Your task to perform on an android device: show emergency info Image 0: 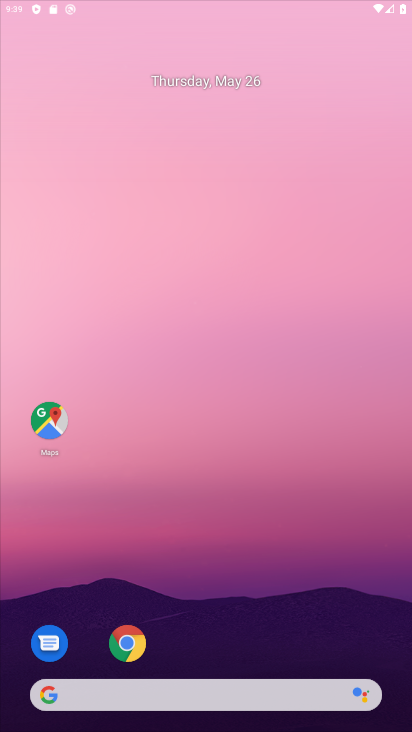
Step 0: click (168, 41)
Your task to perform on an android device: show emergency info Image 1: 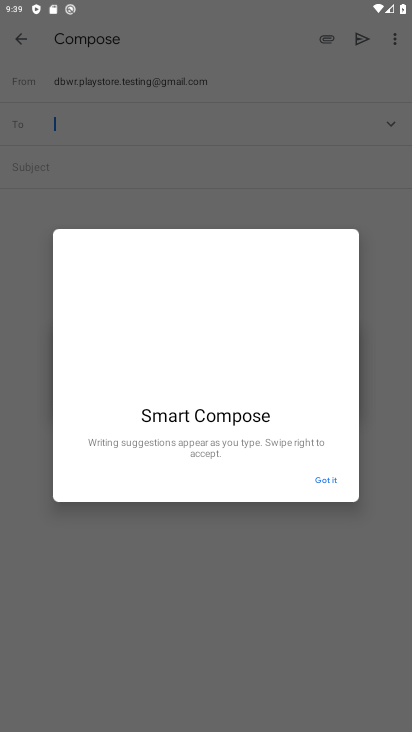
Step 1: press back button
Your task to perform on an android device: show emergency info Image 2: 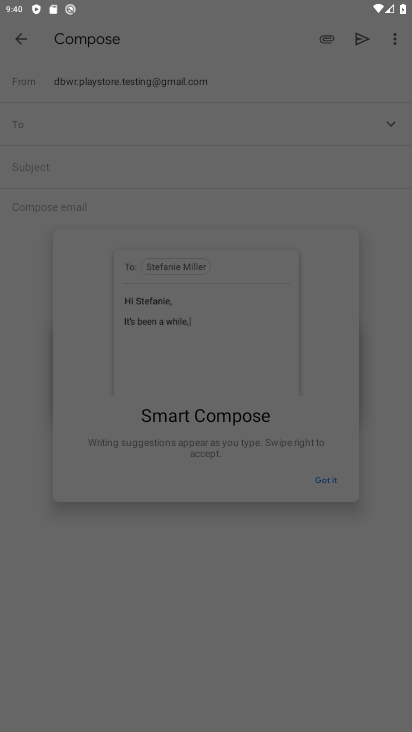
Step 2: click (322, 480)
Your task to perform on an android device: show emergency info Image 3: 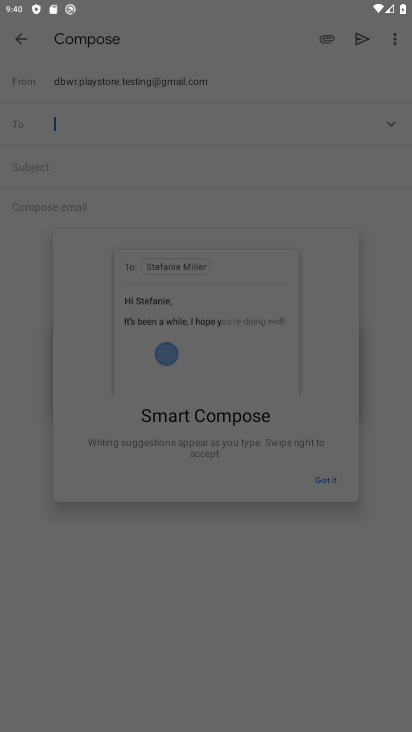
Step 3: press home button
Your task to perform on an android device: show emergency info Image 4: 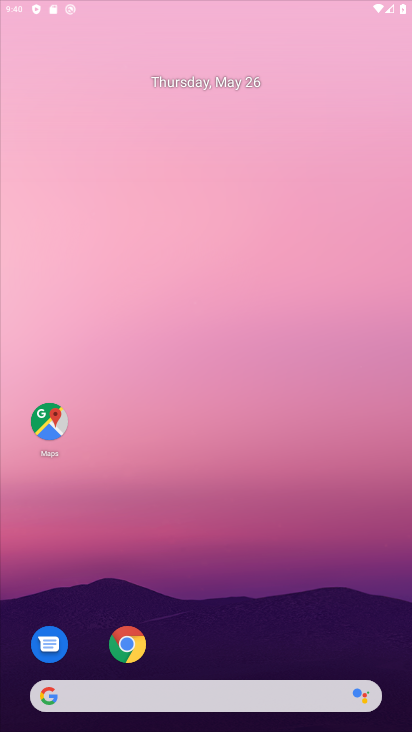
Step 4: press back button
Your task to perform on an android device: show emergency info Image 5: 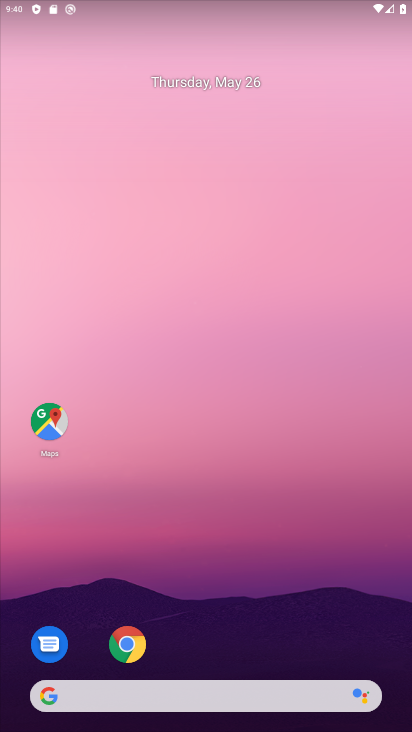
Step 5: drag from (207, 450) to (120, 148)
Your task to perform on an android device: show emergency info Image 6: 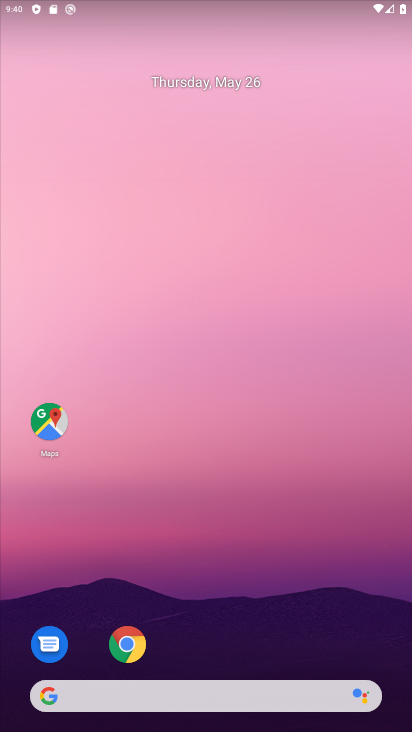
Step 6: drag from (276, 637) to (145, 96)
Your task to perform on an android device: show emergency info Image 7: 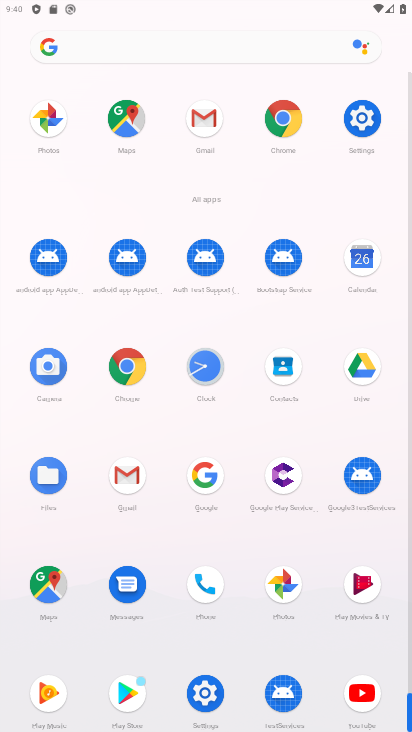
Step 7: click (360, 114)
Your task to perform on an android device: show emergency info Image 8: 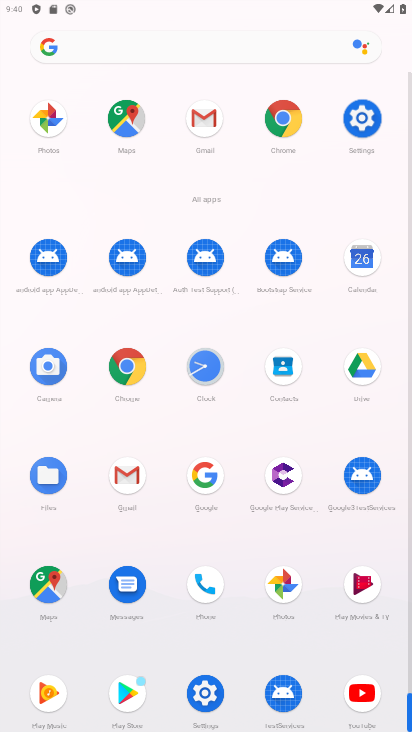
Step 8: click (360, 114)
Your task to perform on an android device: show emergency info Image 9: 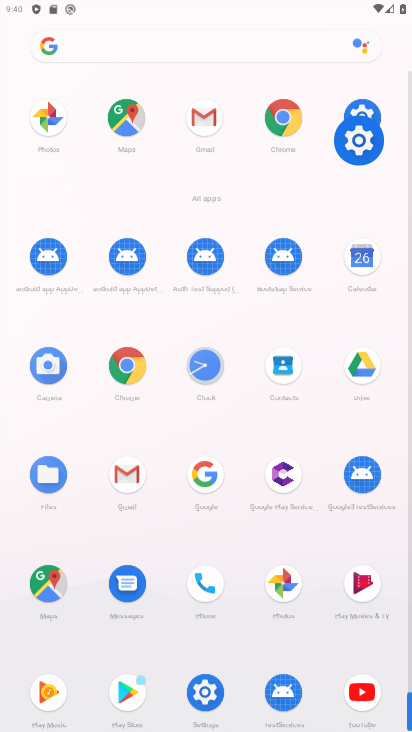
Step 9: click (360, 114)
Your task to perform on an android device: show emergency info Image 10: 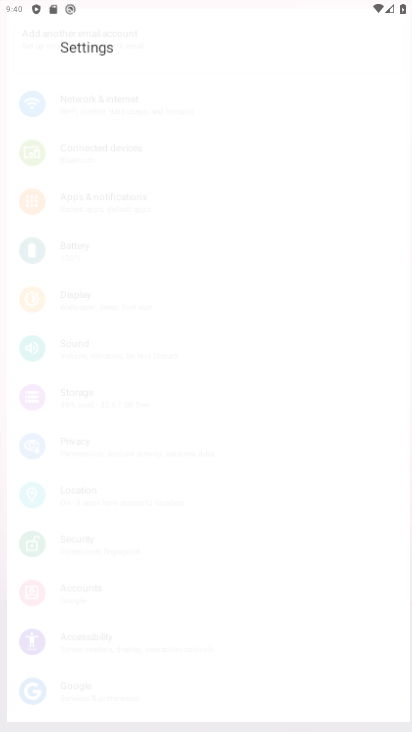
Step 10: click (361, 113)
Your task to perform on an android device: show emergency info Image 11: 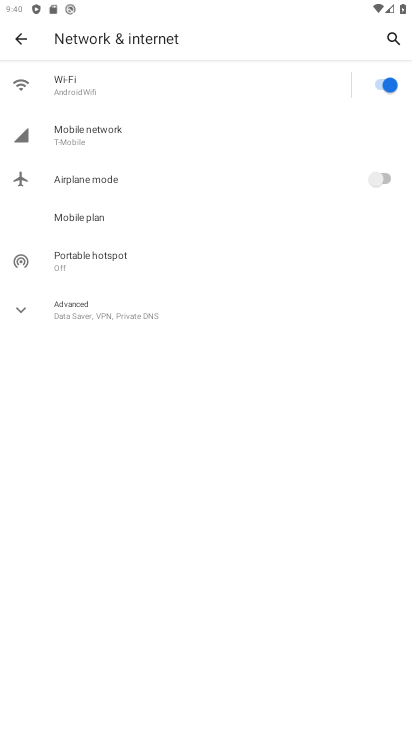
Step 11: click (359, 111)
Your task to perform on an android device: show emergency info Image 12: 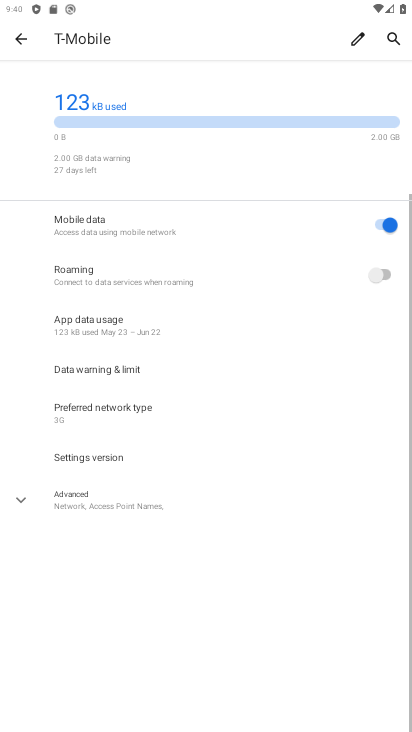
Step 12: click (16, 40)
Your task to perform on an android device: show emergency info Image 13: 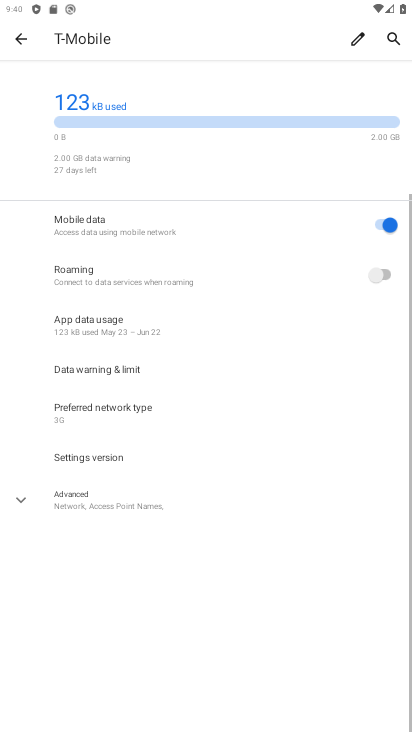
Step 13: click (16, 40)
Your task to perform on an android device: show emergency info Image 14: 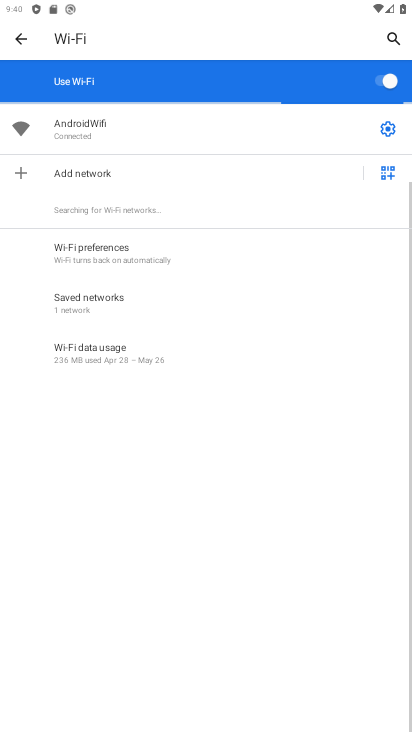
Step 14: click (18, 29)
Your task to perform on an android device: show emergency info Image 15: 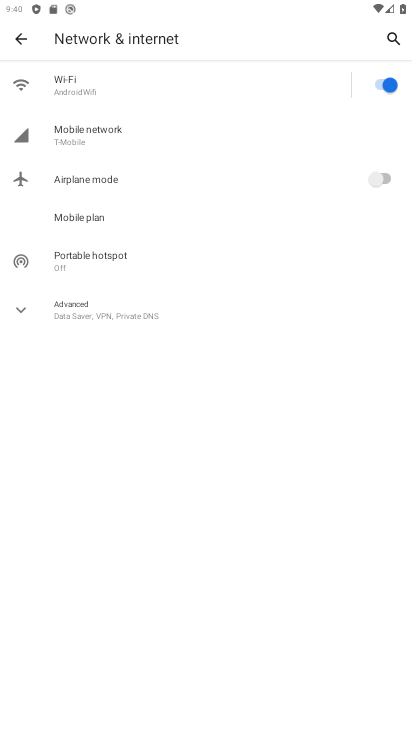
Step 15: click (13, 40)
Your task to perform on an android device: show emergency info Image 16: 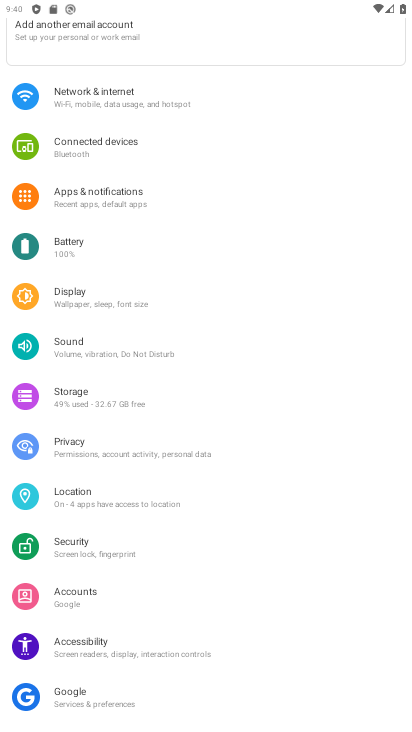
Step 16: drag from (148, 601) to (56, 173)
Your task to perform on an android device: show emergency info Image 17: 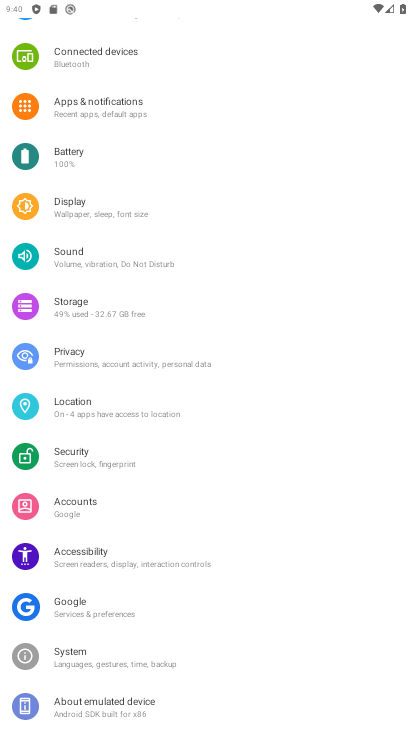
Step 17: click (68, 707)
Your task to perform on an android device: show emergency info Image 18: 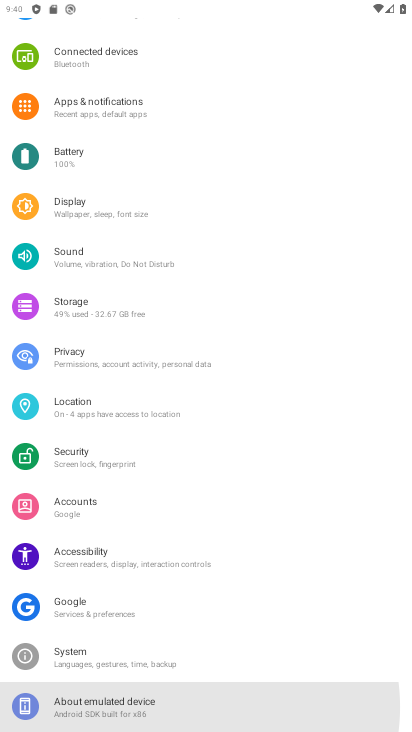
Step 18: click (69, 706)
Your task to perform on an android device: show emergency info Image 19: 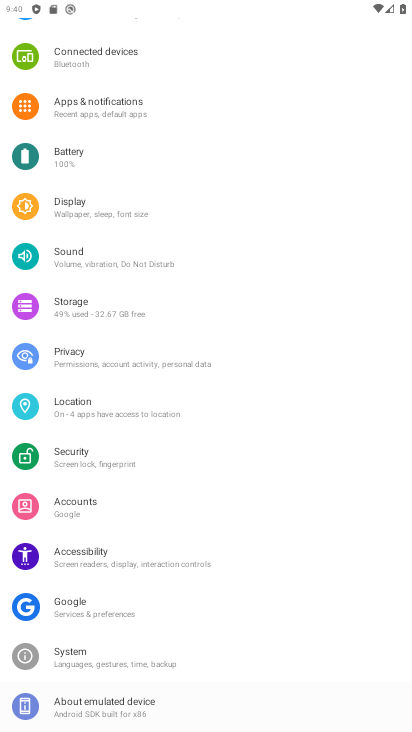
Step 19: click (69, 706)
Your task to perform on an android device: show emergency info Image 20: 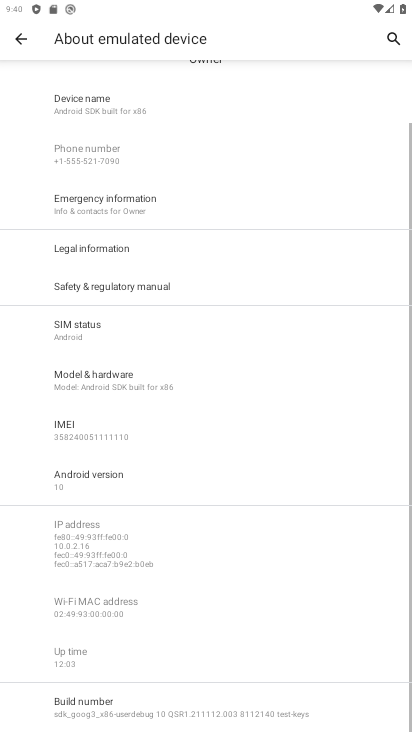
Step 20: task complete